Your task to perform on an android device: turn off javascript in the chrome app Image 0: 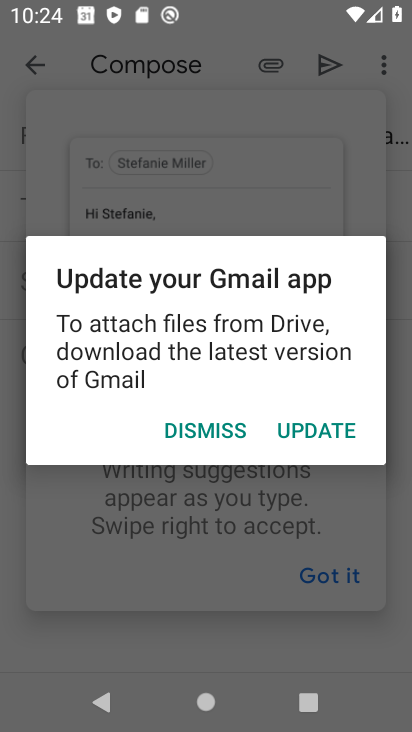
Step 0: press home button
Your task to perform on an android device: turn off javascript in the chrome app Image 1: 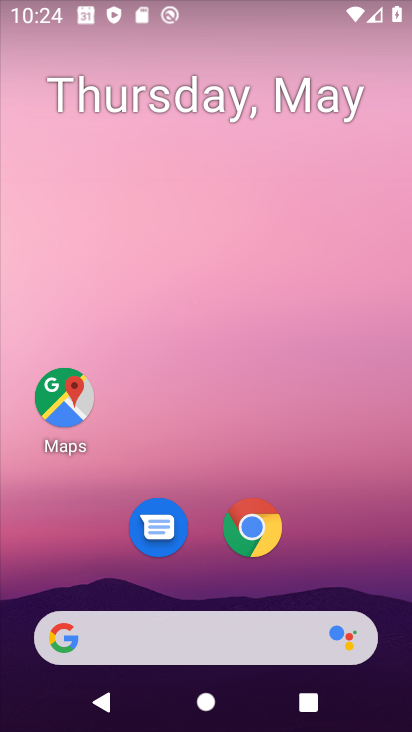
Step 1: click (250, 527)
Your task to perform on an android device: turn off javascript in the chrome app Image 2: 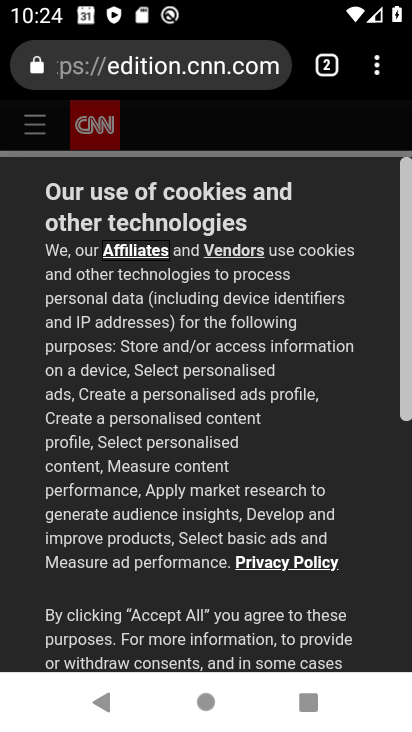
Step 2: click (376, 73)
Your task to perform on an android device: turn off javascript in the chrome app Image 3: 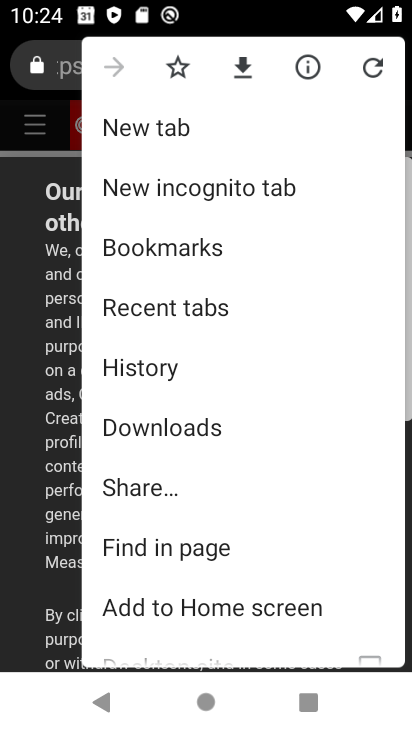
Step 3: drag from (199, 568) to (193, 205)
Your task to perform on an android device: turn off javascript in the chrome app Image 4: 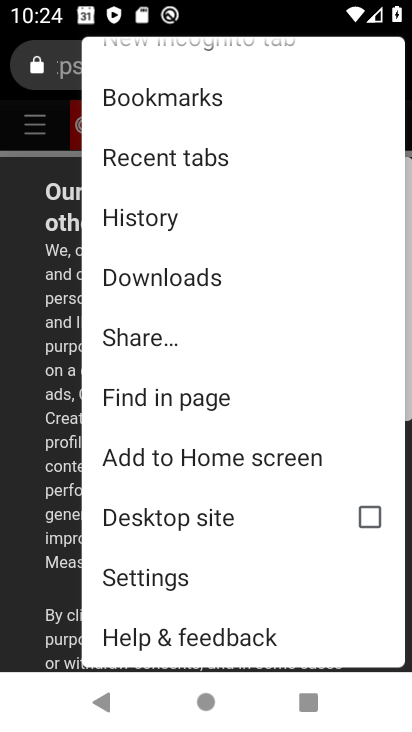
Step 4: click (161, 575)
Your task to perform on an android device: turn off javascript in the chrome app Image 5: 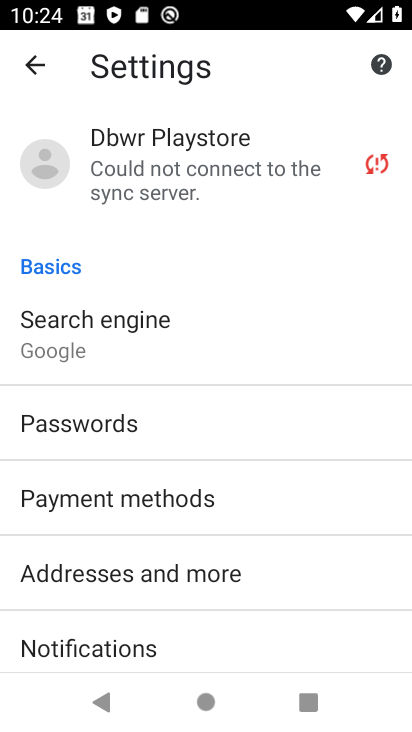
Step 5: drag from (157, 616) to (168, 257)
Your task to perform on an android device: turn off javascript in the chrome app Image 6: 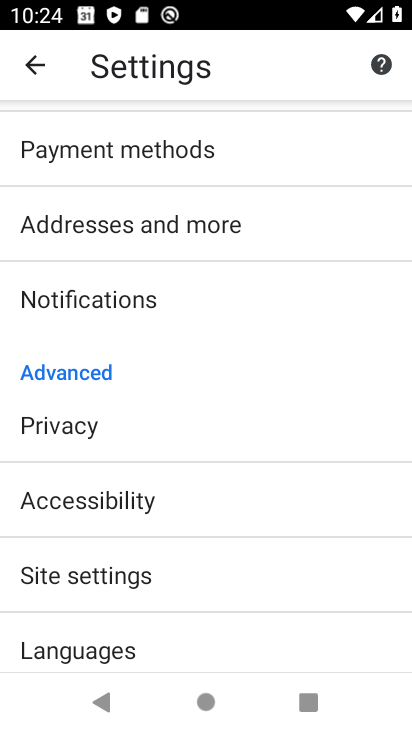
Step 6: drag from (192, 609) to (195, 270)
Your task to perform on an android device: turn off javascript in the chrome app Image 7: 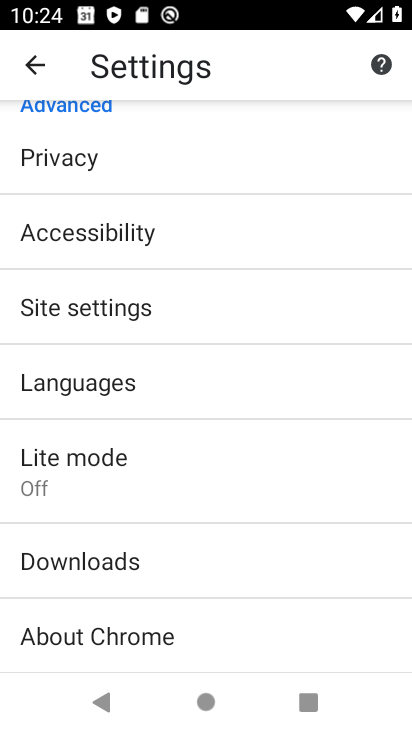
Step 7: click (102, 302)
Your task to perform on an android device: turn off javascript in the chrome app Image 8: 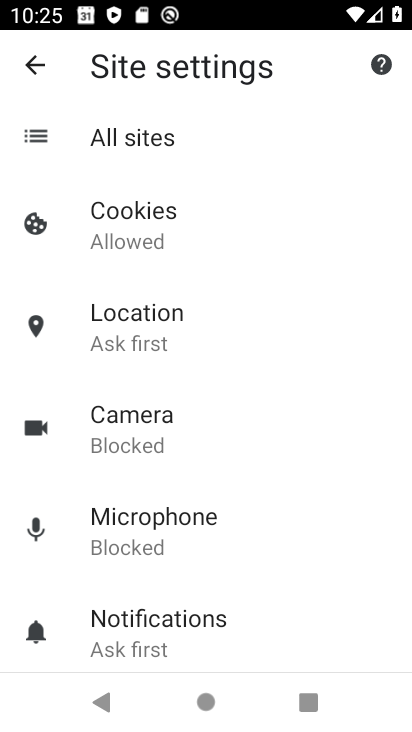
Step 8: drag from (177, 591) to (186, 262)
Your task to perform on an android device: turn off javascript in the chrome app Image 9: 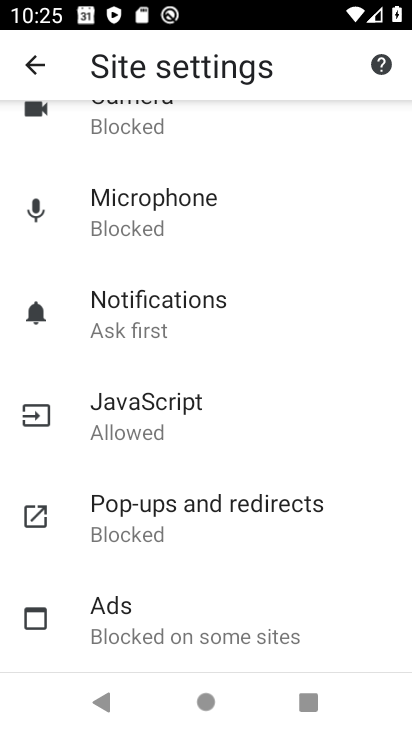
Step 9: click (151, 408)
Your task to perform on an android device: turn off javascript in the chrome app Image 10: 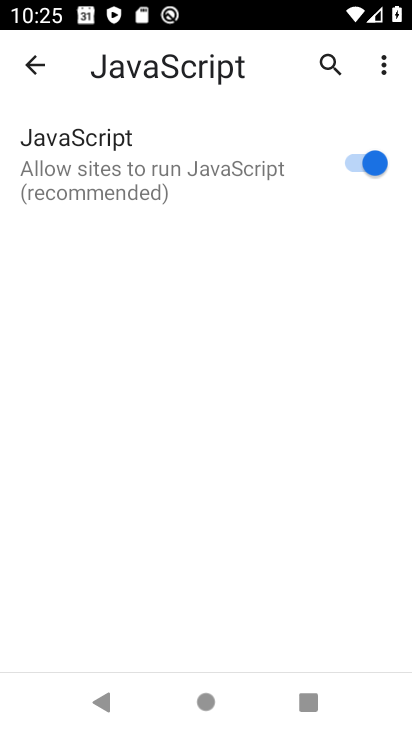
Step 10: click (352, 162)
Your task to perform on an android device: turn off javascript in the chrome app Image 11: 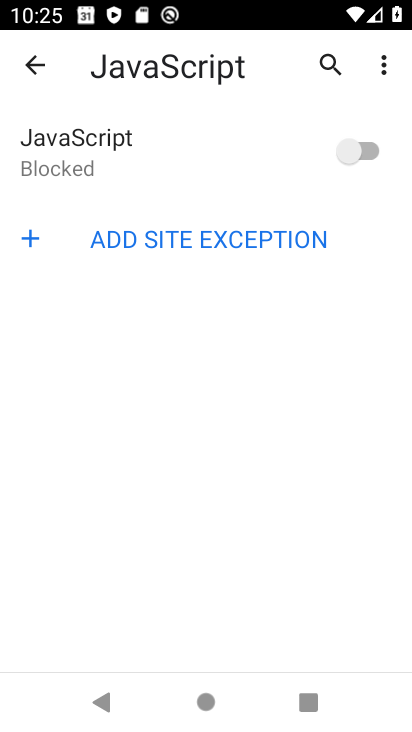
Step 11: task complete